Your task to perform on an android device: Open eBay Image 0: 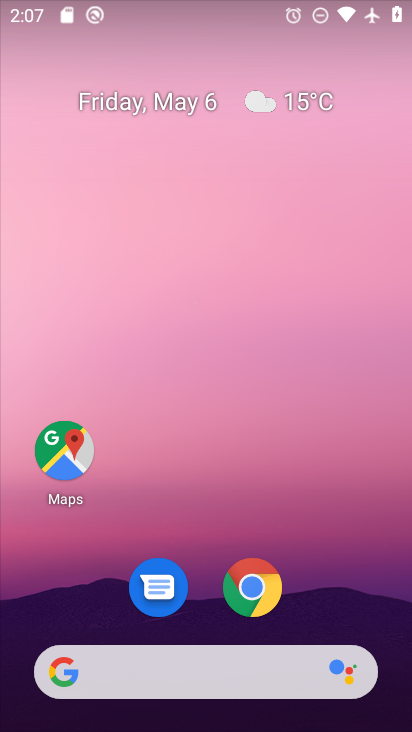
Step 0: click (266, 587)
Your task to perform on an android device: Open eBay Image 1: 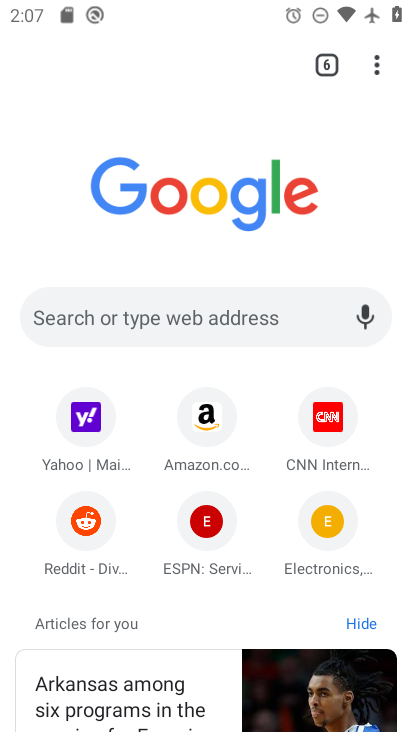
Step 1: click (155, 313)
Your task to perform on an android device: Open eBay Image 2: 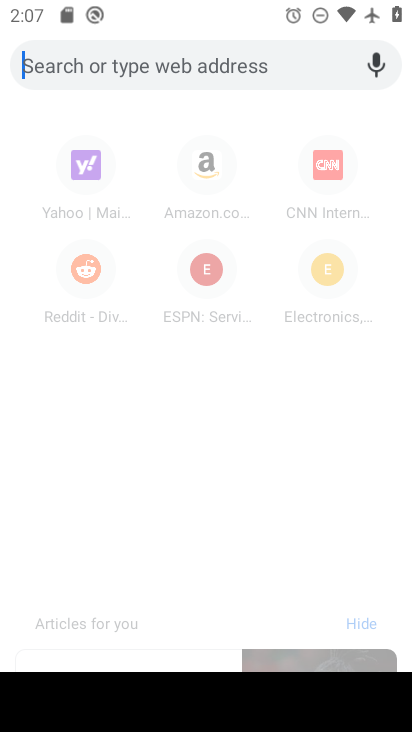
Step 2: type "eBay."
Your task to perform on an android device: Open eBay Image 3: 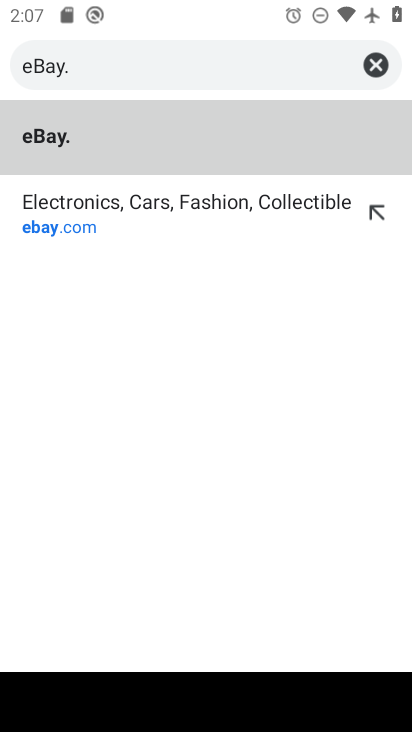
Step 3: click (77, 212)
Your task to perform on an android device: Open eBay Image 4: 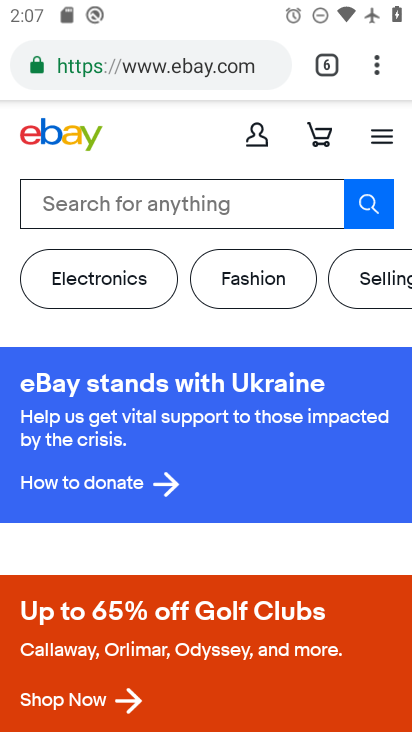
Step 4: task complete